Your task to perform on an android device: check android version Image 0: 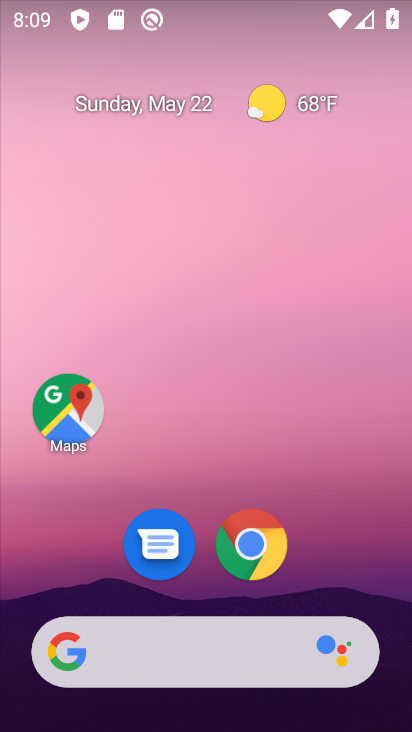
Step 0: drag from (348, 531) to (359, 180)
Your task to perform on an android device: check android version Image 1: 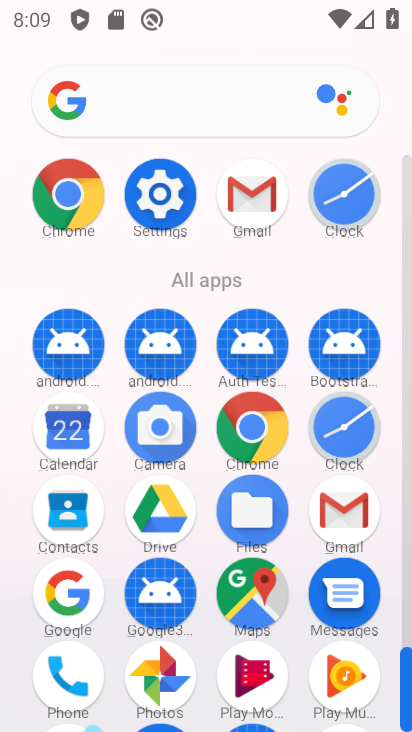
Step 1: click (75, 577)
Your task to perform on an android device: check android version Image 2: 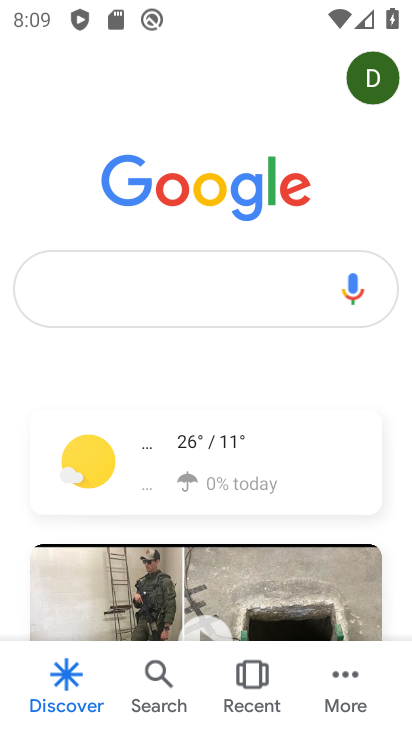
Step 2: click (347, 677)
Your task to perform on an android device: check android version Image 3: 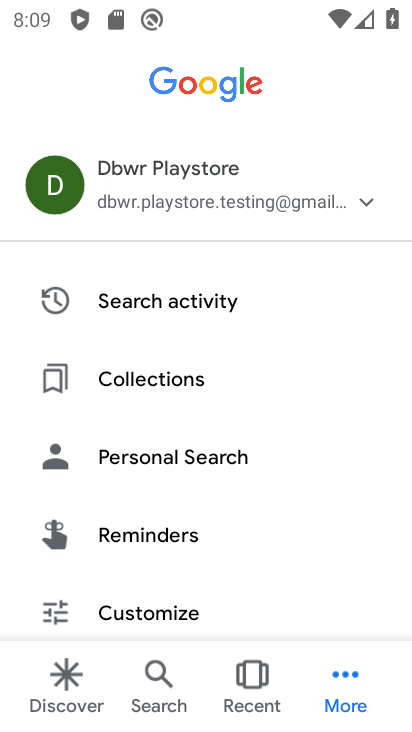
Step 3: drag from (266, 577) to (242, 372)
Your task to perform on an android device: check android version Image 4: 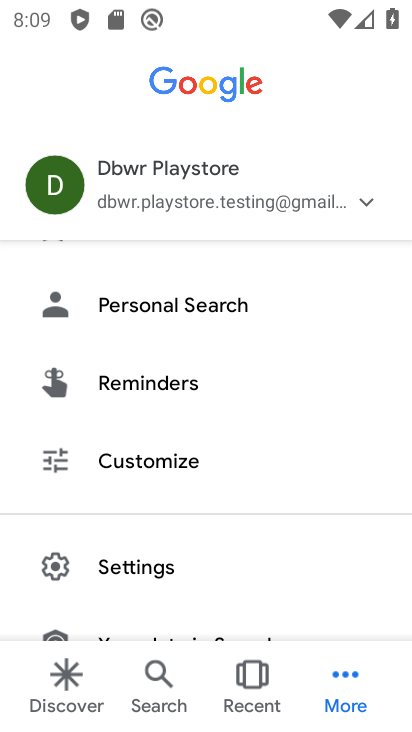
Step 4: click (142, 563)
Your task to perform on an android device: check android version Image 5: 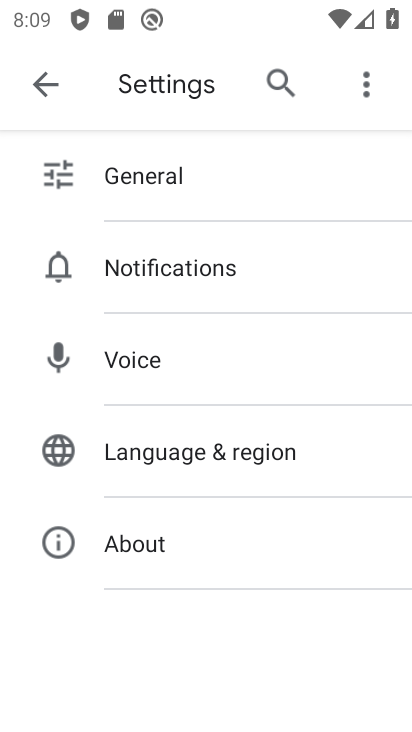
Step 5: click (153, 541)
Your task to perform on an android device: check android version Image 6: 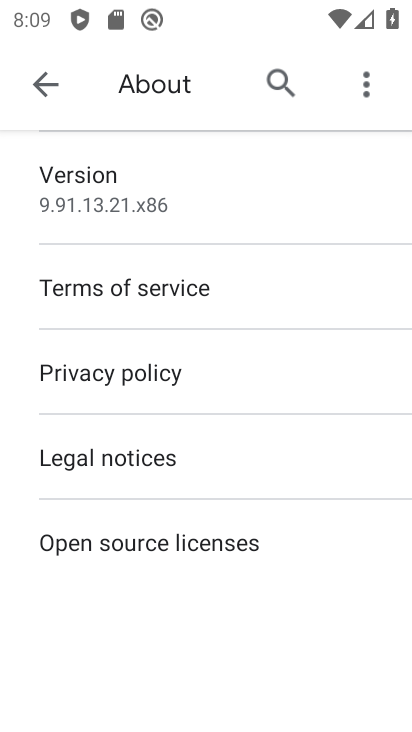
Step 6: click (106, 179)
Your task to perform on an android device: check android version Image 7: 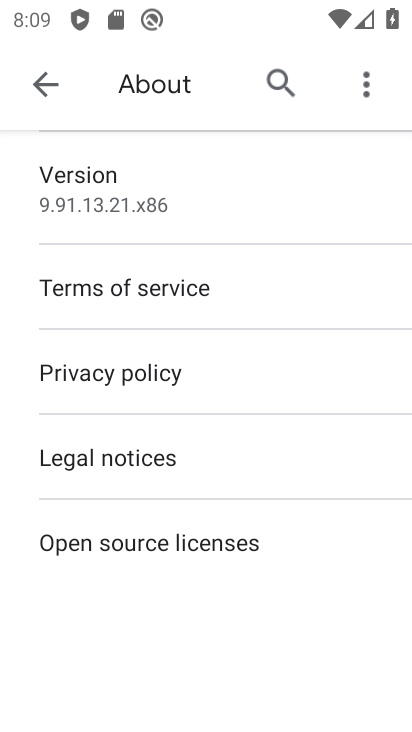
Step 7: task complete